Your task to perform on an android device: Go to Google Image 0: 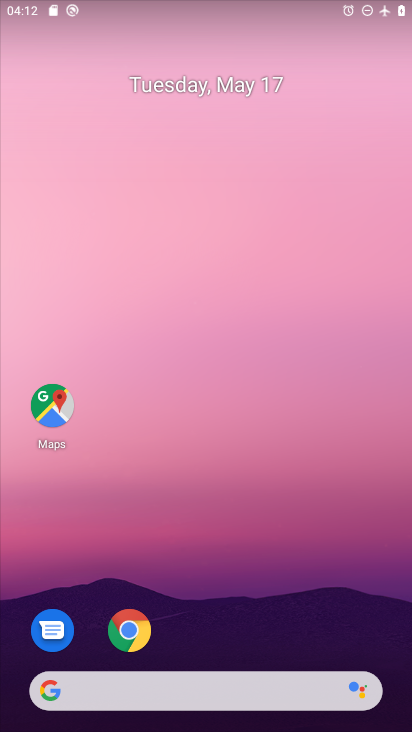
Step 0: drag from (243, 601) to (285, 156)
Your task to perform on an android device: Go to Google Image 1: 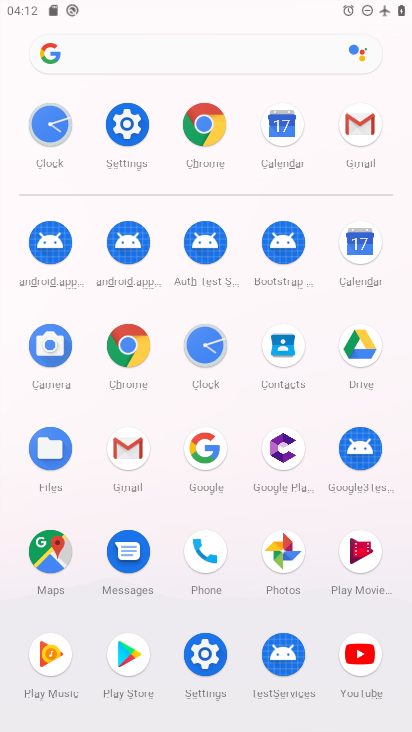
Step 1: click (203, 456)
Your task to perform on an android device: Go to Google Image 2: 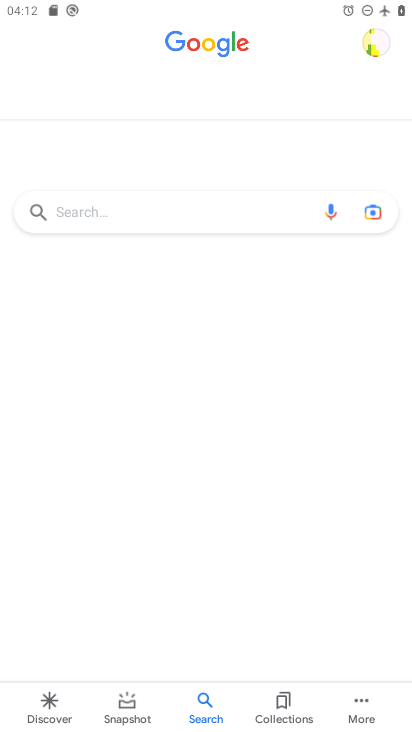
Step 2: task complete